Your task to perform on an android device: turn off picture-in-picture Image 0: 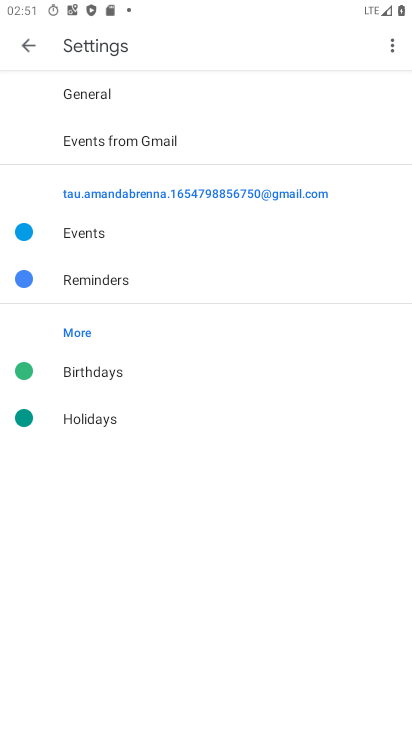
Step 0: press home button
Your task to perform on an android device: turn off picture-in-picture Image 1: 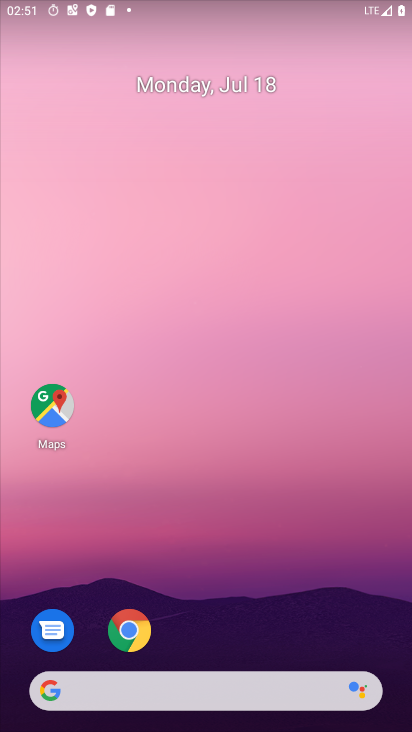
Step 1: click (128, 636)
Your task to perform on an android device: turn off picture-in-picture Image 2: 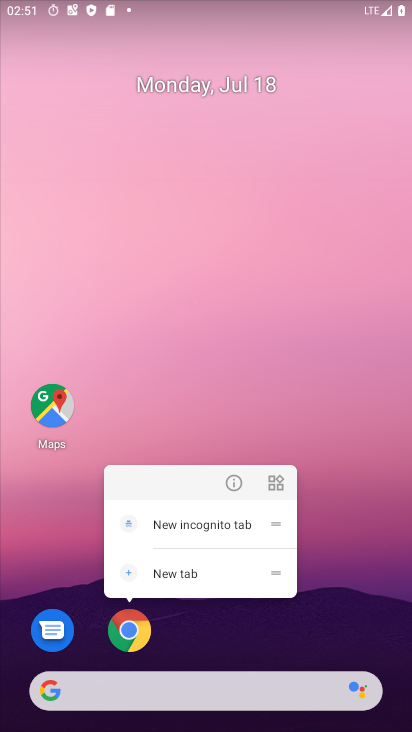
Step 2: click (236, 474)
Your task to perform on an android device: turn off picture-in-picture Image 3: 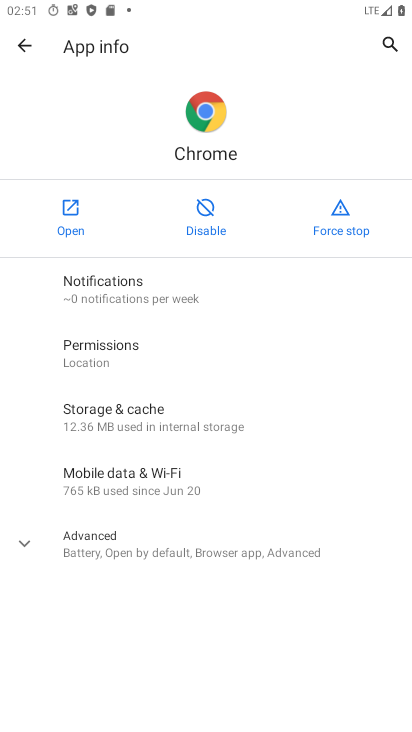
Step 3: click (128, 550)
Your task to perform on an android device: turn off picture-in-picture Image 4: 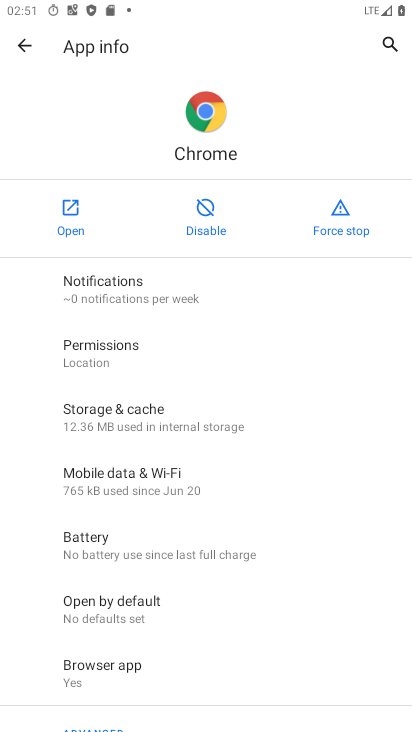
Step 4: drag from (128, 550) to (169, 124)
Your task to perform on an android device: turn off picture-in-picture Image 5: 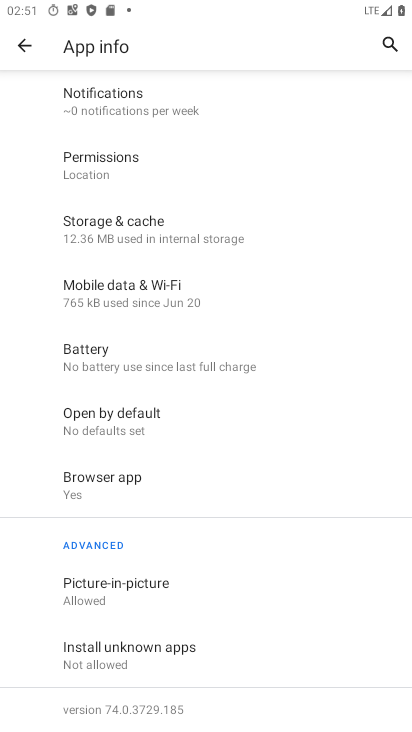
Step 5: click (125, 585)
Your task to perform on an android device: turn off picture-in-picture Image 6: 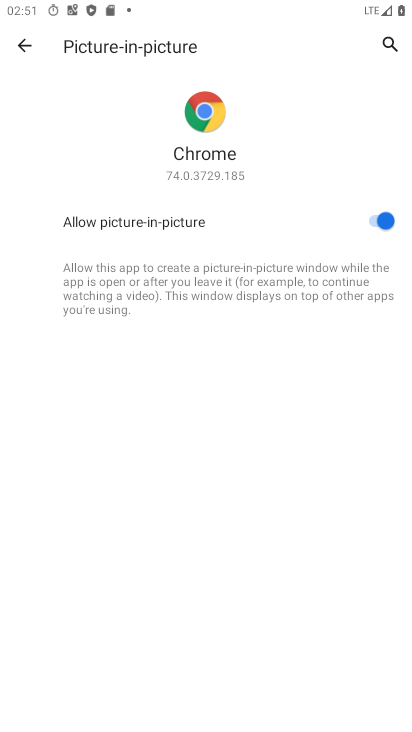
Step 6: click (374, 228)
Your task to perform on an android device: turn off picture-in-picture Image 7: 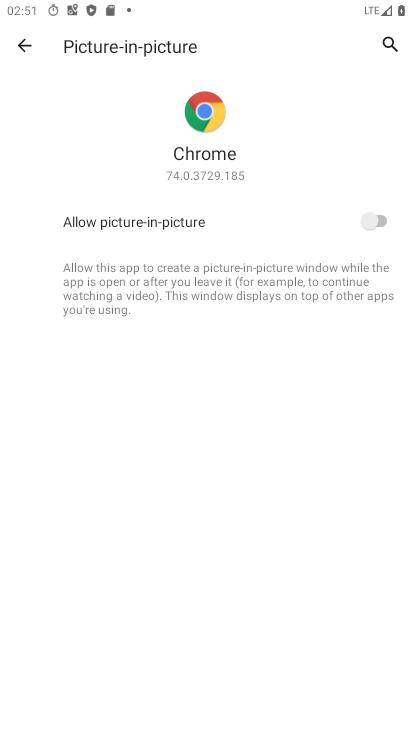
Step 7: task complete